Your task to perform on an android device: Go to location settings Image 0: 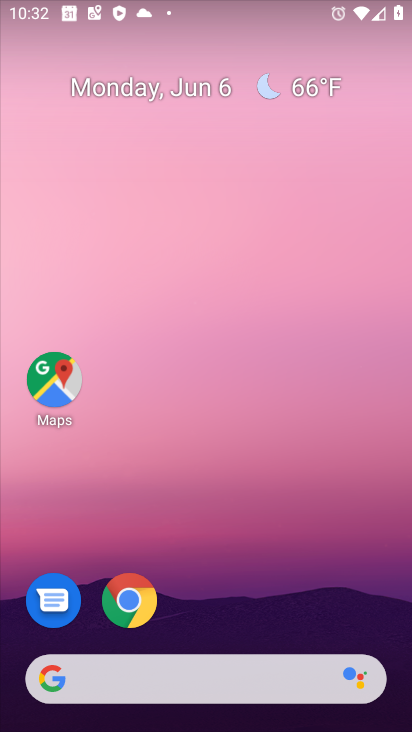
Step 0: drag from (32, 589) to (261, 99)
Your task to perform on an android device: Go to location settings Image 1: 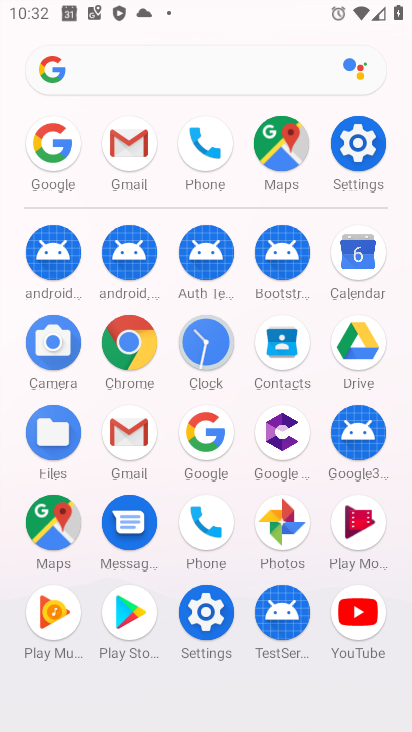
Step 1: click (362, 148)
Your task to perform on an android device: Go to location settings Image 2: 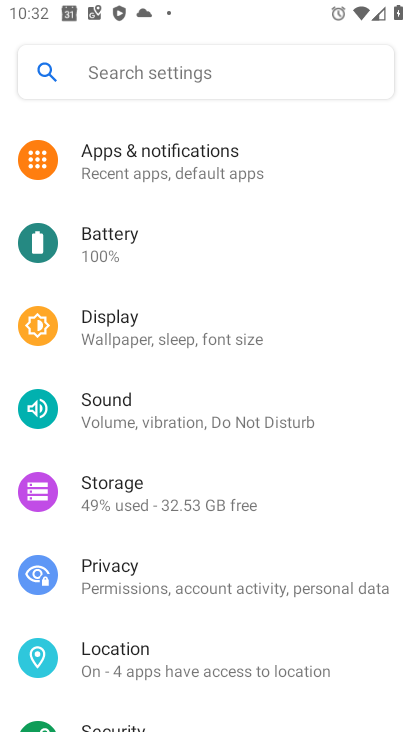
Step 2: click (68, 662)
Your task to perform on an android device: Go to location settings Image 3: 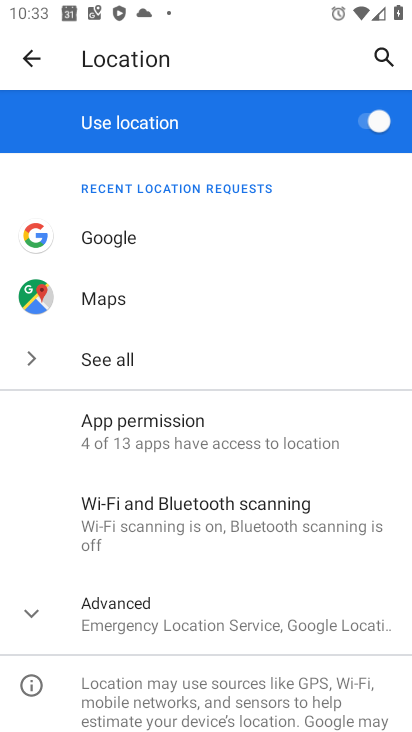
Step 3: task complete